Your task to perform on an android device: open app "Move to iOS" Image 0: 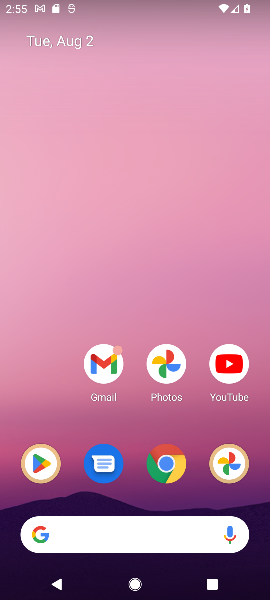
Step 0: click (38, 461)
Your task to perform on an android device: open app "Move to iOS" Image 1: 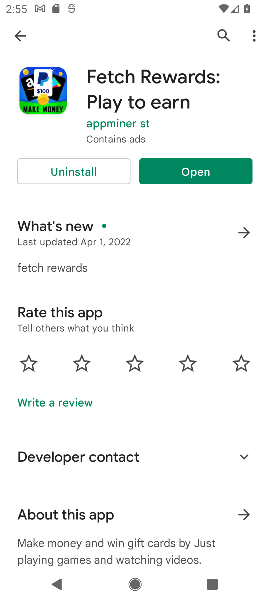
Step 1: click (223, 30)
Your task to perform on an android device: open app "Move to iOS" Image 2: 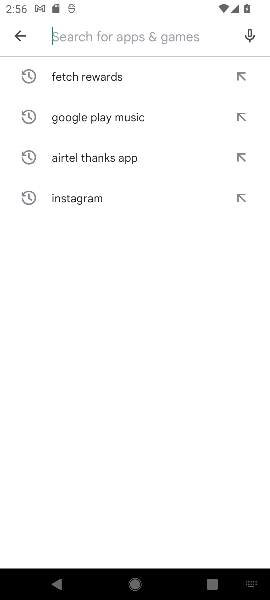
Step 2: type "Move to iOS"
Your task to perform on an android device: open app "Move to iOS" Image 3: 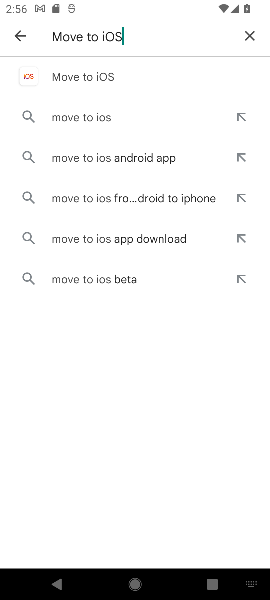
Step 3: click (104, 76)
Your task to perform on an android device: open app "Move to iOS" Image 4: 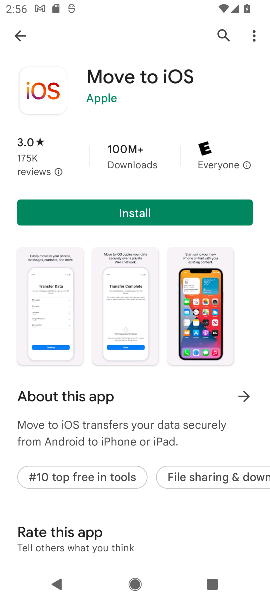
Step 4: task complete